Your task to perform on an android device: remove spam from my inbox in the gmail app Image 0: 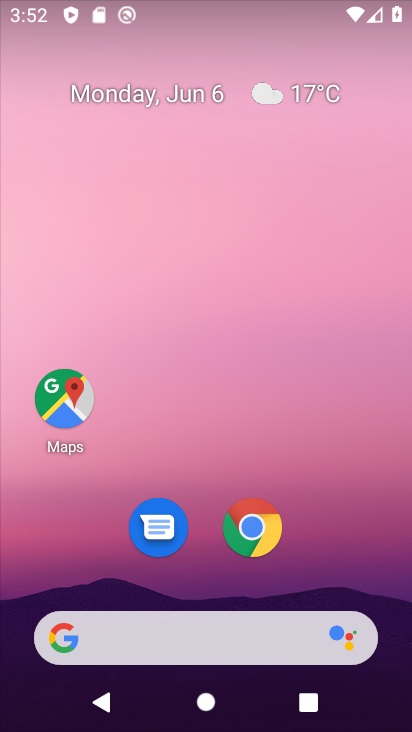
Step 0: click (184, 199)
Your task to perform on an android device: remove spam from my inbox in the gmail app Image 1: 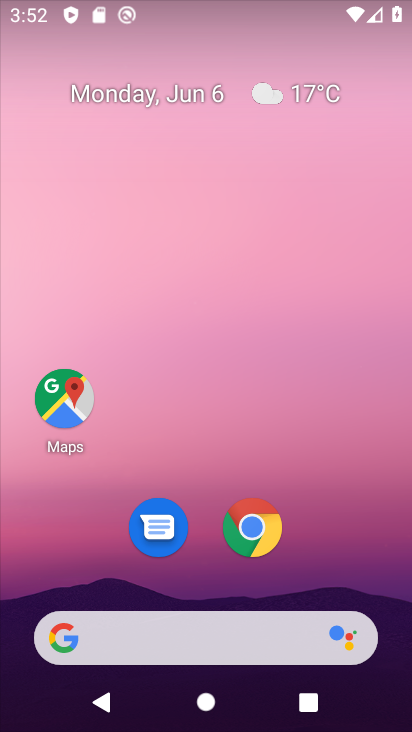
Step 1: drag from (163, 615) to (163, 242)
Your task to perform on an android device: remove spam from my inbox in the gmail app Image 2: 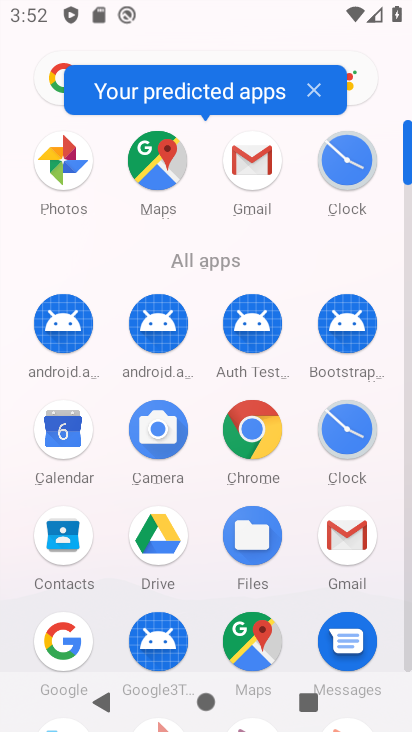
Step 2: click (345, 545)
Your task to perform on an android device: remove spam from my inbox in the gmail app Image 3: 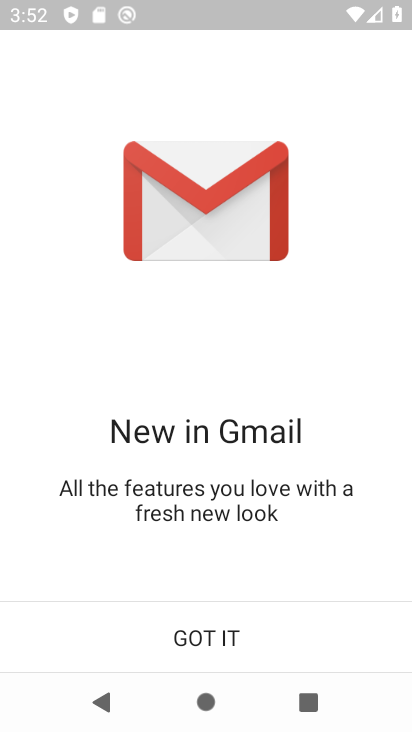
Step 3: click (213, 637)
Your task to perform on an android device: remove spam from my inbox in the gmail app Image 4: 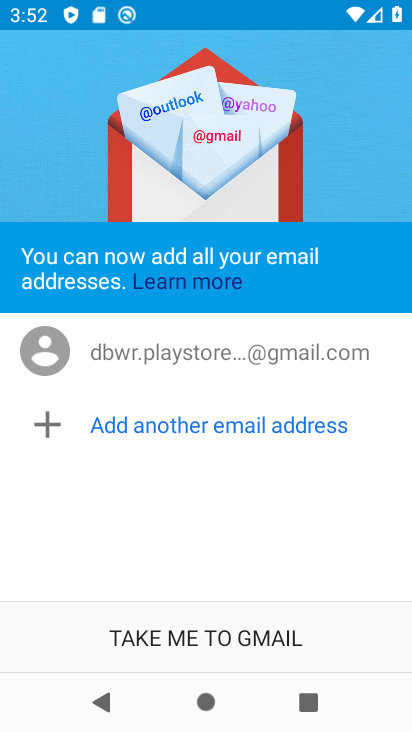
Step 4: click (213, 637)
Your task to perform on an android device: remove spam from my inbox in the gmail app Image 5: 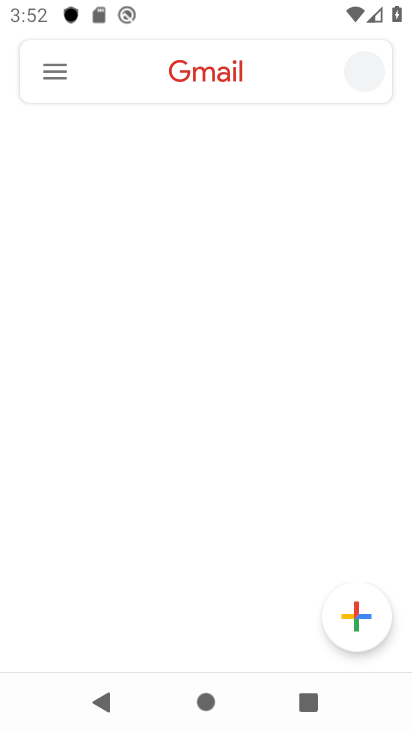
Step 5: click (51, 74)
Your task to perform on an android device: remove spam from my inbox in the gmail app Image 6: 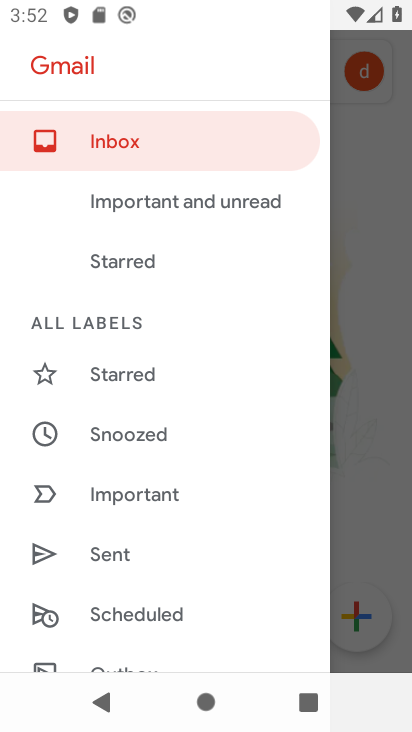
Step 6: drag from (160, 657) to (174, 220)
Your task to perform on an android device: remove spam from my inbox in the gmail app Image 7: 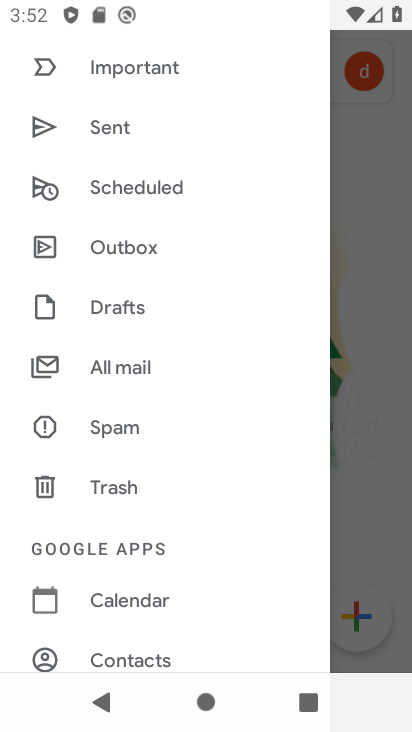
Step 7: click (124, 428)
Your task to perform on an android device: remove spam from my inbox in the gmail app Image 8: 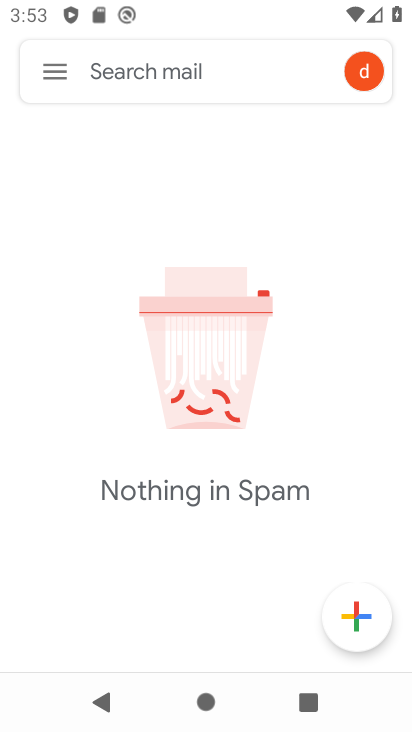
Step 8: task complete